Your task to perform on an android device: toggle translation in the chrome app Image 0: 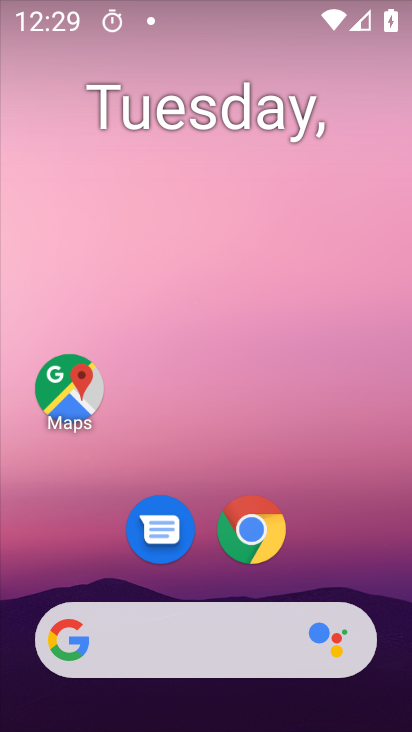
Step 0: drag from (319, 546) to (303, 16)
Your task to perform on an android device: toggle translation in the chrome app Image 1: 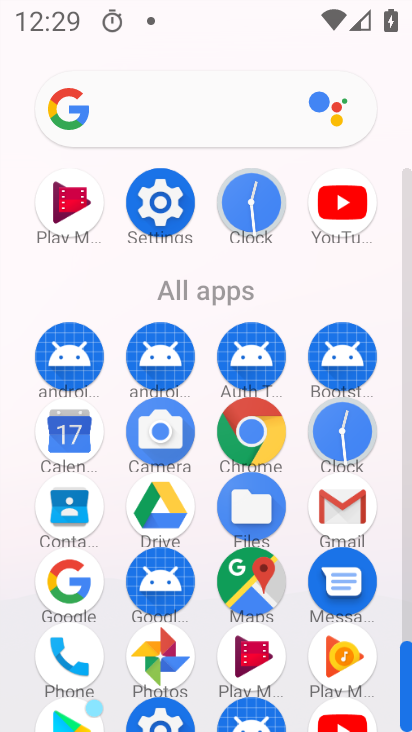
Step 1: click (257, 431)
Your task to perform on an android device: toggle translation in the chrome app Image 2: 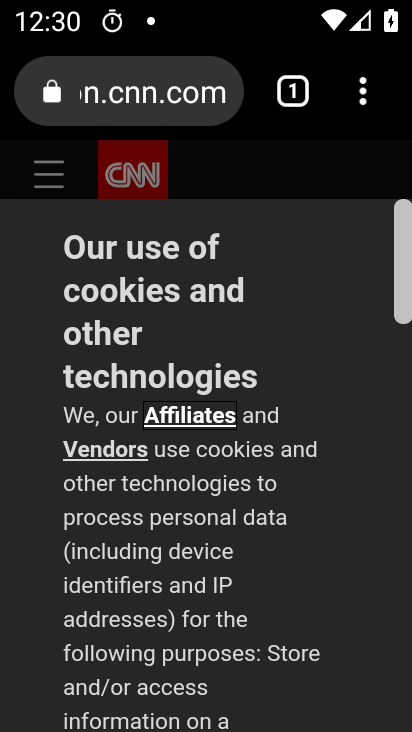
Step 2: drag from (360, 98) to (118, 563)
Your task to perform on an android device: toggle translation in the chrome app Image 3: 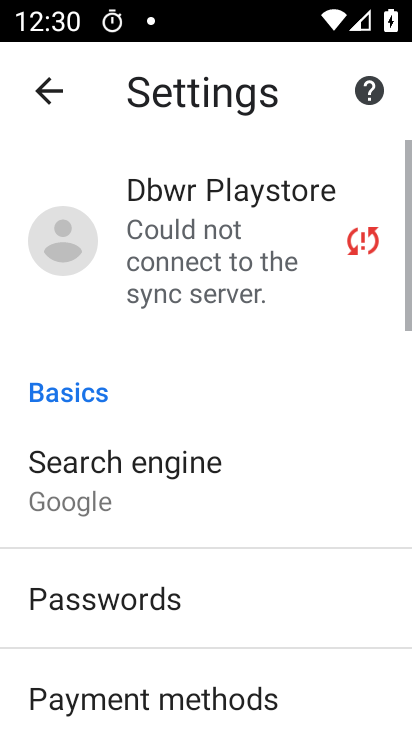
Step 3: drag from (174, 621) to (227, 149)
Your task to perform on an android device: toggle translation in the chrome app Image 4: 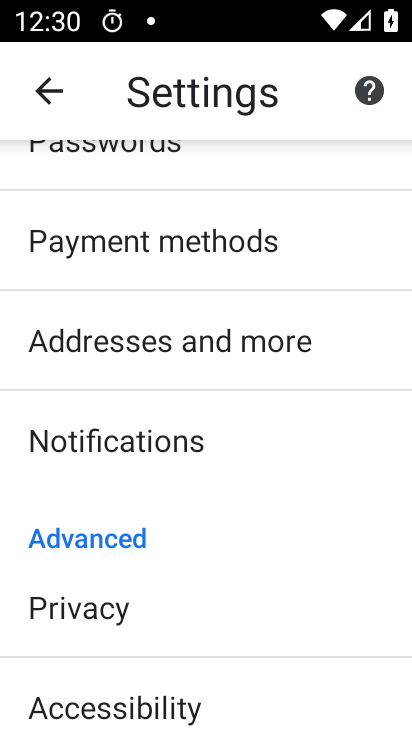
Step 4: drag from (141, 635) to (174, 162)
Your task to perform on an android device: toggle translation in the chrome app Image 5: 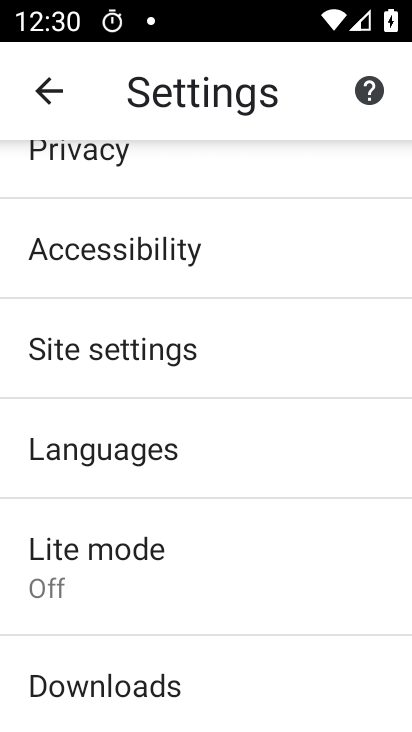
Step 5: click (128, 439)
Your task to perform on an android device: toggle translation in the chrome app Image 6: 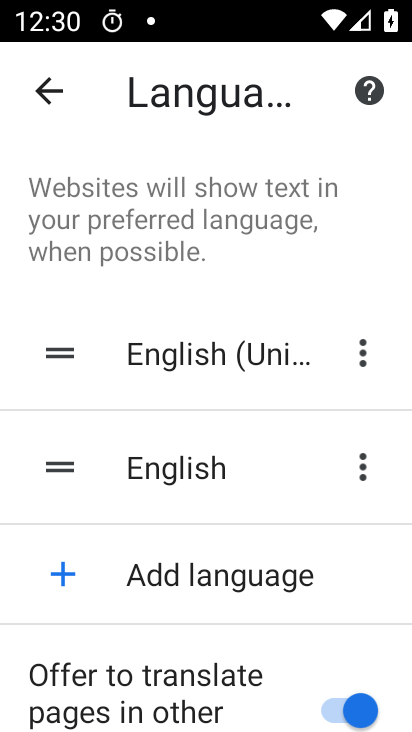
Step 6: click (346, 714)
Your task to perform on an android device: toggle translation in the chrome app Image 7: 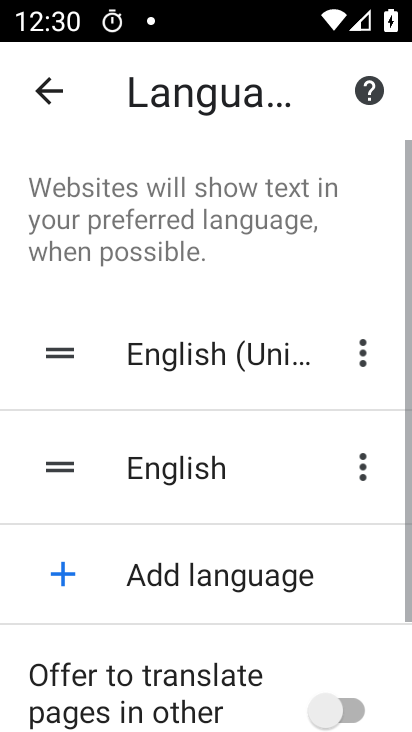
Step 7: task complete